Your task to perform on an android device: Go to Reddit.com Image 0: 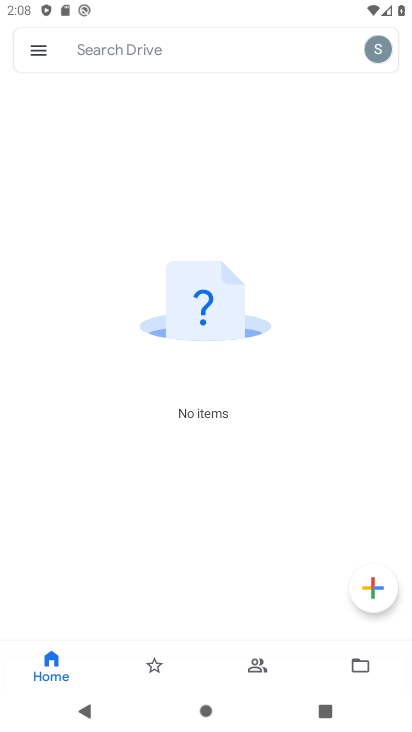
Step 0: press home button
Your task to perform on an android device: Go to Reddit.com Image 1: 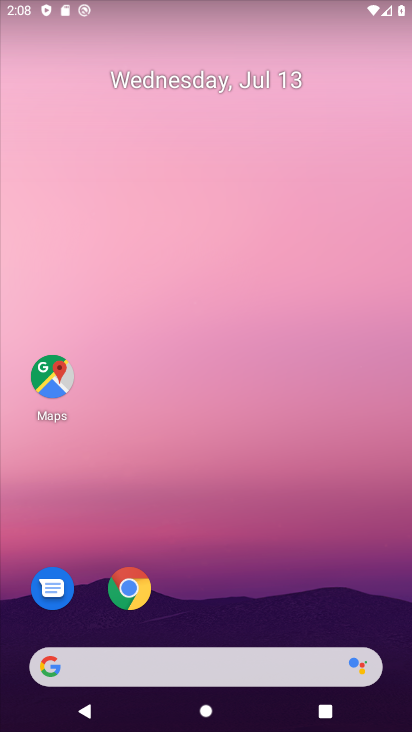
Step 1: click (136, 591)
Your task to perform on an android device: Go to Reddit.com Image 2: 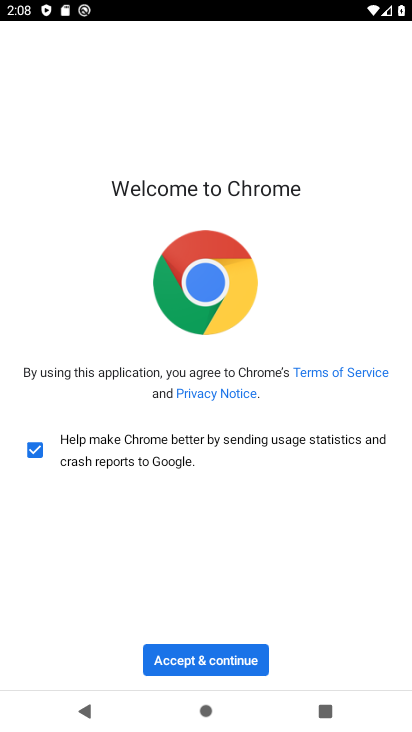
Step 2: click (187, 660)
Your task to perform on an android device: Go to Reddit.com Image 3: 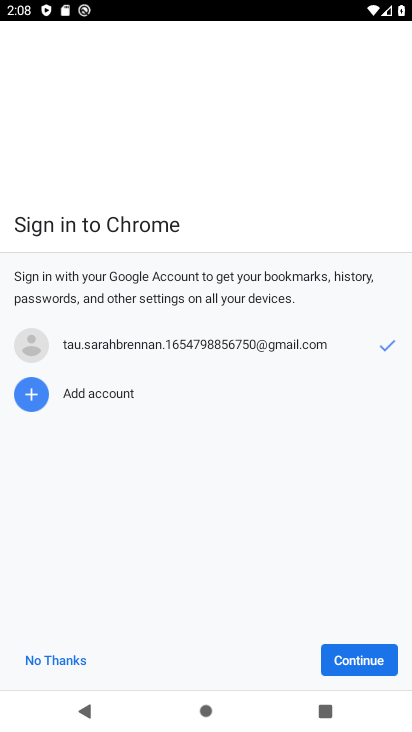
Step 3: click (367, 666)
Your task to perform on an android device: Go to Reddit.com Image 4: 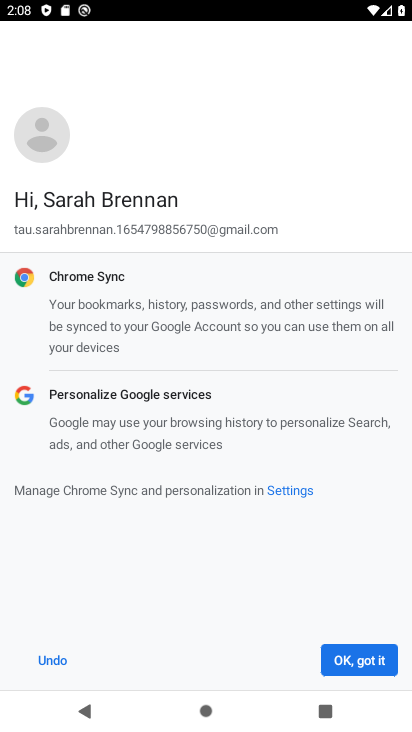
Step 4: click (376, 651)
Your task to perform on an android device: Go to Reddit.com Image 5: 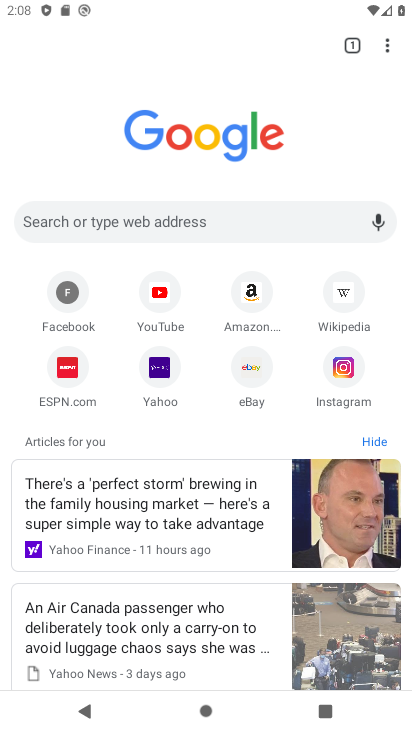
Step 5: click (265, 221)
Your task to perform on an android device: Go to Reddit.com Image 6: 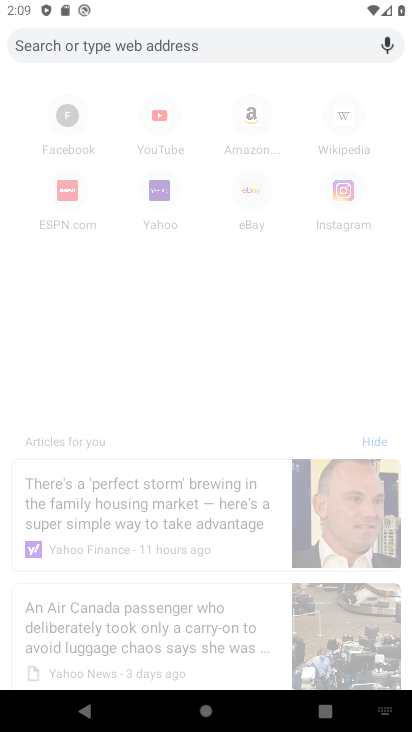
Step 6: type "reddit.com"
Your task to perform on an android device: Go to Reddit.com Image 7: 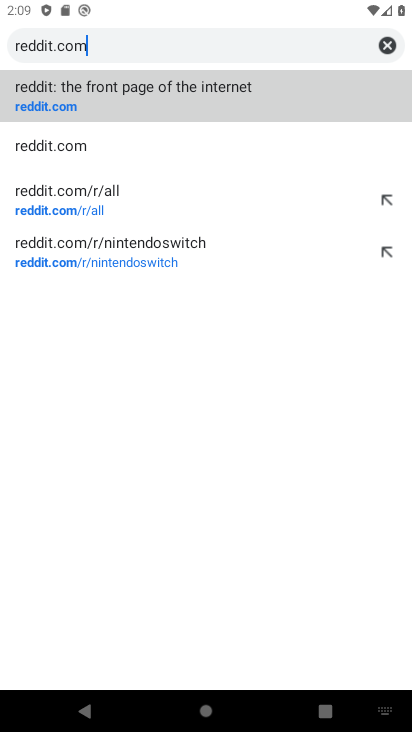
Step 7: click (360, 83)
Your task to perform on an android device: Go to Reddit.com Image 8: 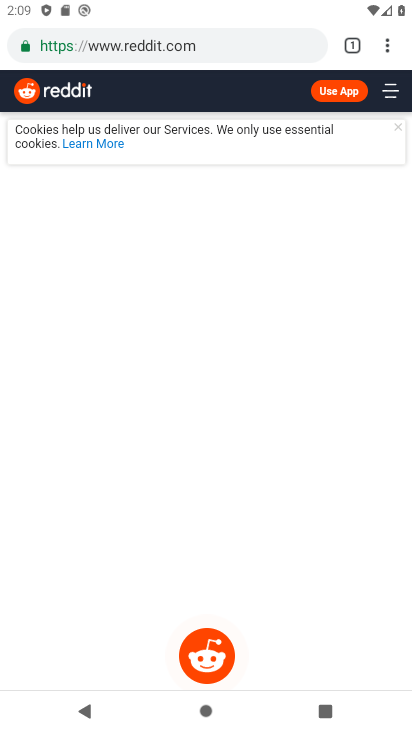
Step 8: task complete